Your task to perform on an android device: Go to Amazon Image 0: 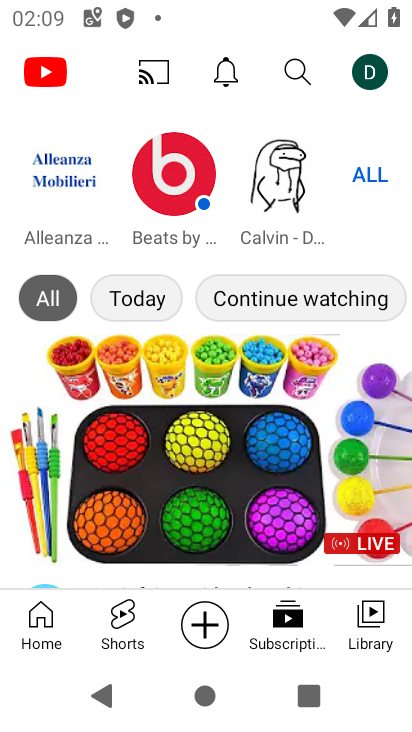
Step 0: press home button
Your task to perform on an android device: Go to Amazon Image 1: 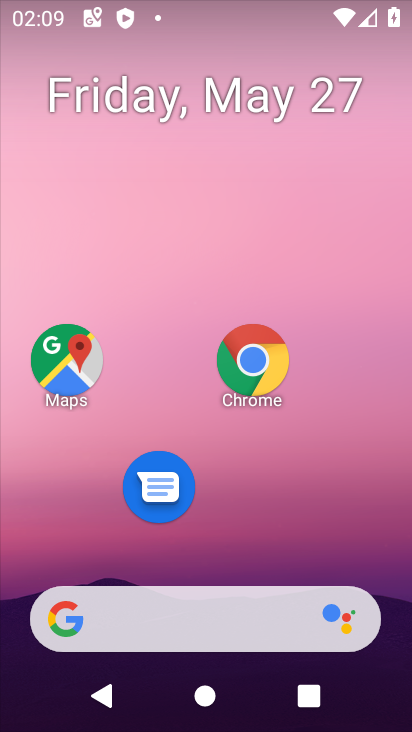
Step 1: drag from (265, 525) to (303, 102)
Your task to perform on an android device: Go to Amazon Image 2: 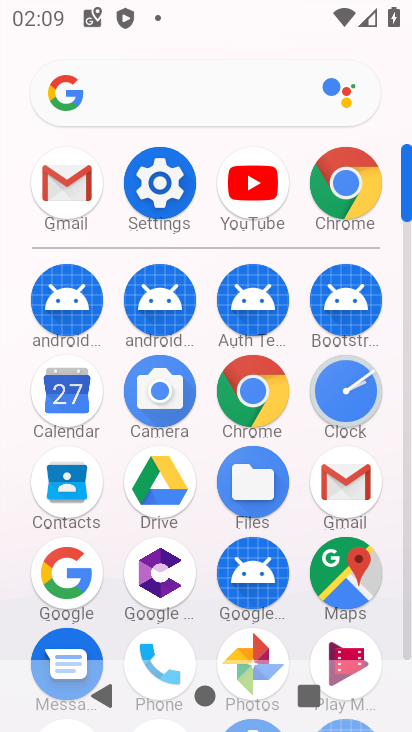
Step 2: click (349, 196)
Your task to perform on an android device: Go to Amazon Image 3: 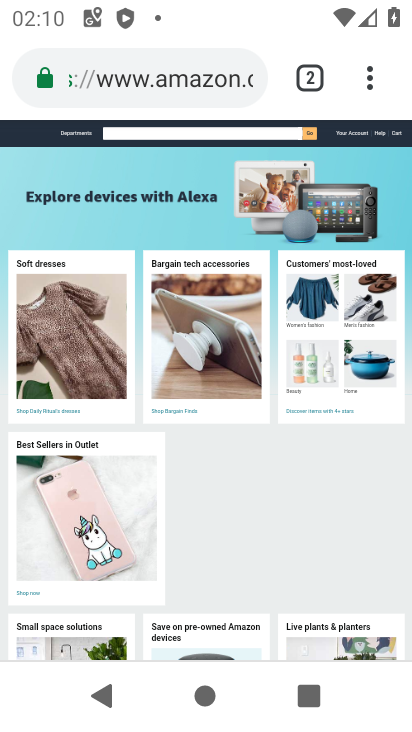
Step 3: task complete